Your task to perform on an android device: star an email in the gmail app Image 0: 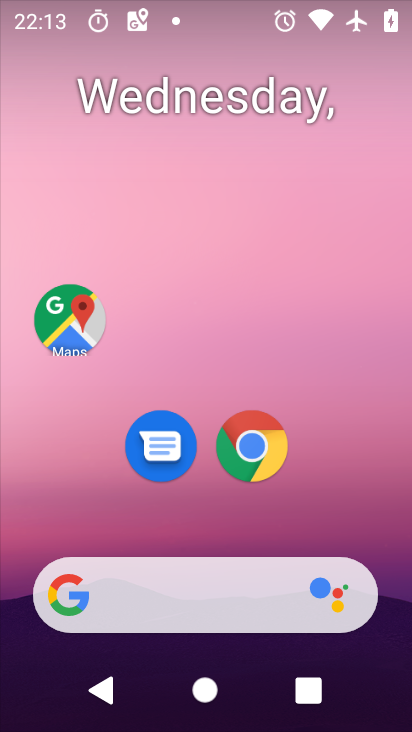
Step 0: press home button
Your task to perform on an android device: star an email in the gmail app Image 1: 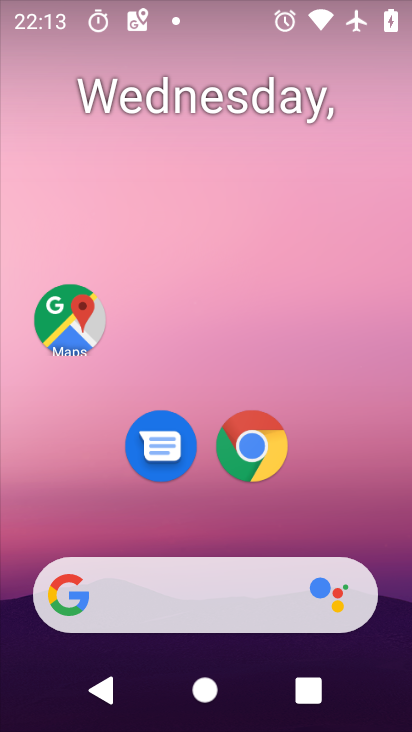
Step 1: drag from (173, 602) to (308, 217)
Your task to perform on an android device: star an email in the gmail app Image 2: 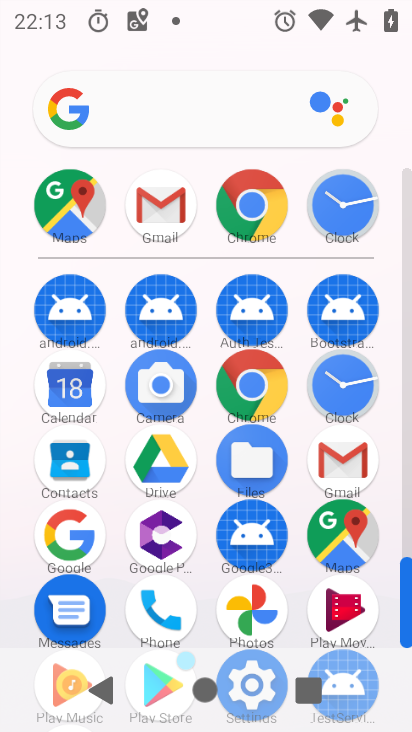
Step 2: click (175, 217)
Your task to perform on an android device: star an email in the gmail app Image 3: 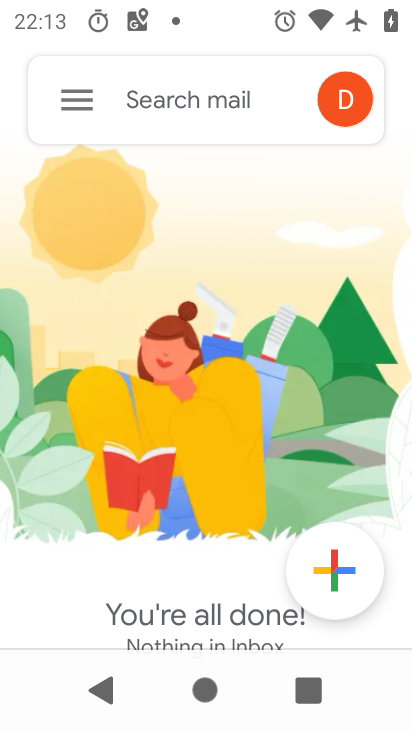
Step 3: task complete